Your task to perform on an android device: turn pop-ups on in chrome Image 0: 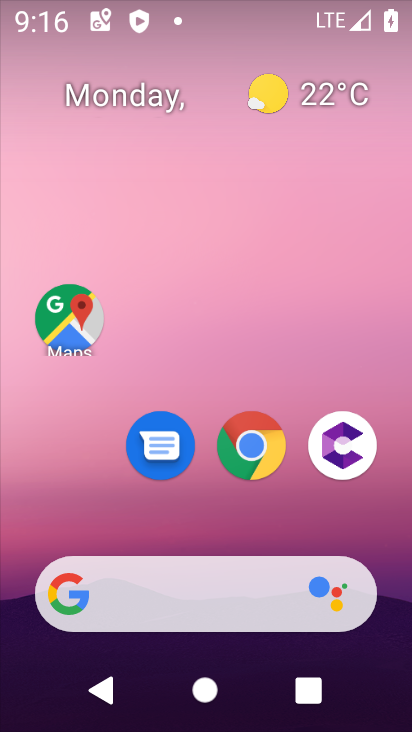
Step 0: click (259, 462)
Your task to perform on an android device: turn pop-ups on in chrome Image 1: 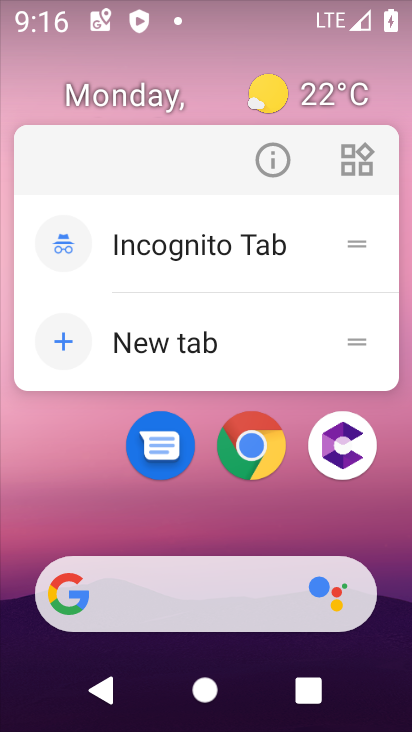
Step 1: click (259, 464)
Your task to perform on an android device: turn pop-ups on in chrome Image 2: 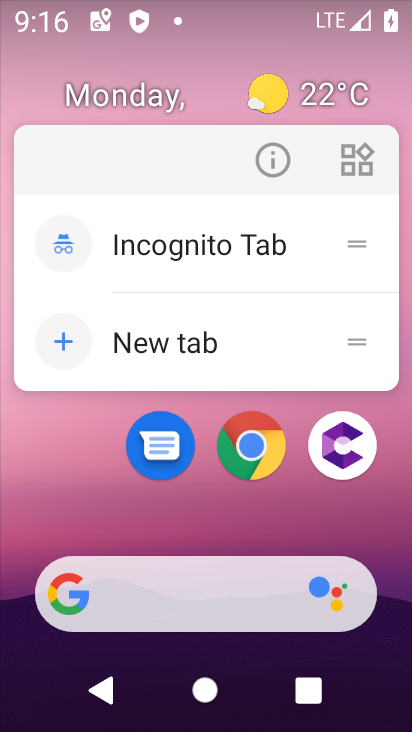
Step 2: click (259, 464)
Your task to perform on an android device: turn pop-ups on in chrome Image 3: 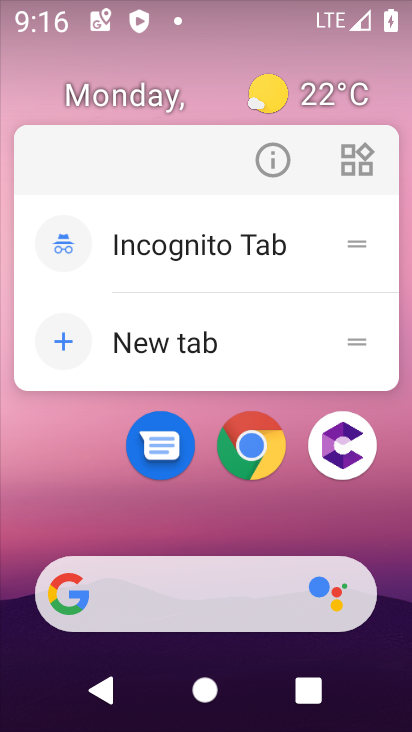
Step 3: click (281, 511)
Your task to perform on an android device: turn pop-ups on in chrome Image 4: 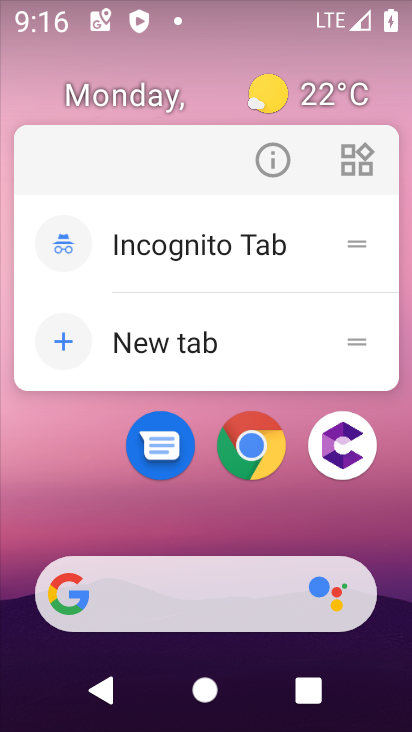
Step 4: click (282, 510)
Your task to perform on an android device: turn pop-ups on in chrome Image 5: 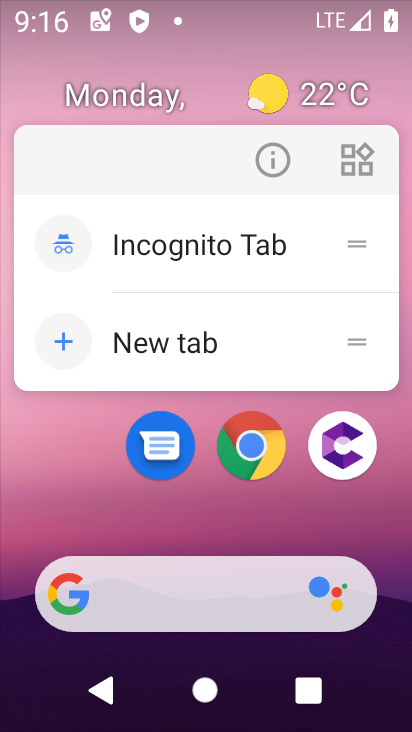
Step 5: drag from (286, 517) to (171, 24)
Your task to perform on an android device: turn pop-ups on in chrome Image 6: 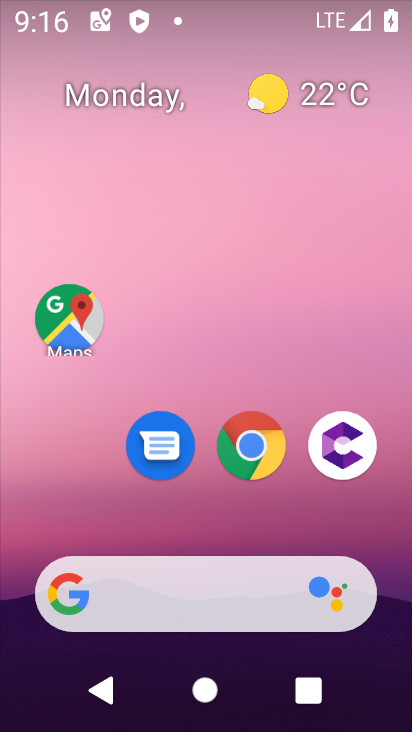
Step 6: drag from (207, 525) to (275, 0)
Your task to perform on an android device: turn pop-ups on in chrome Image 7: 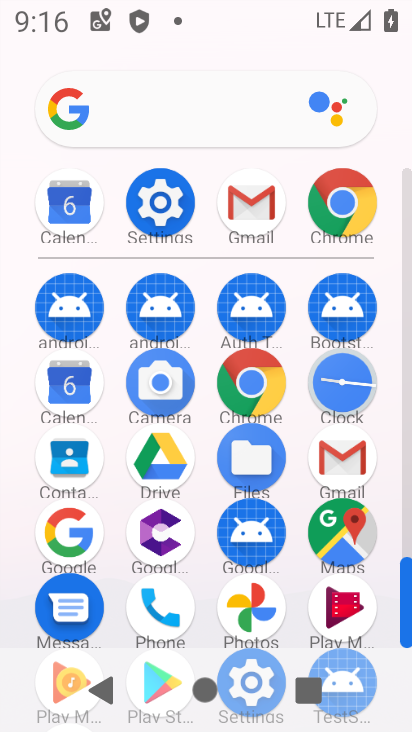
Step 7: click (343, 218)
Your task to perform on an android device: turn pop-ups on in chrome Image 8: 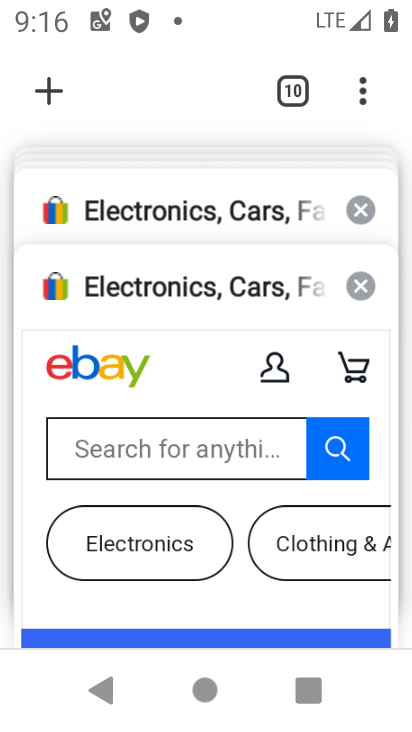
Step 8: drag from (363, 88) to (92, 361)
Your task to perform on an android device: turn pop-ups on in chrome Image 9: 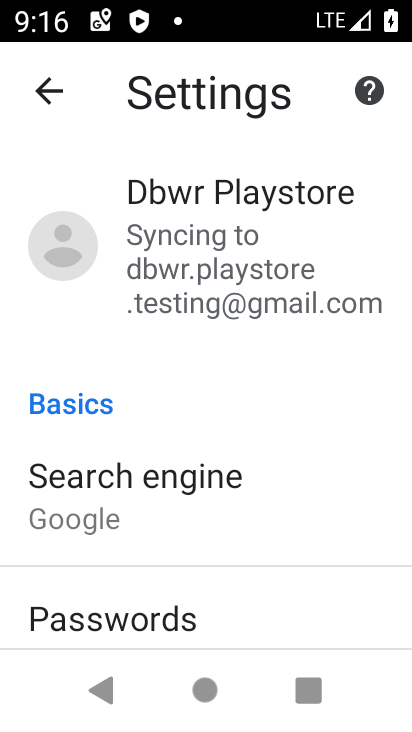
Step 9: drag from (215, 597) to (319, 75)
Your task to perform on an android device: turn pop-ups on in chrome Image 10: 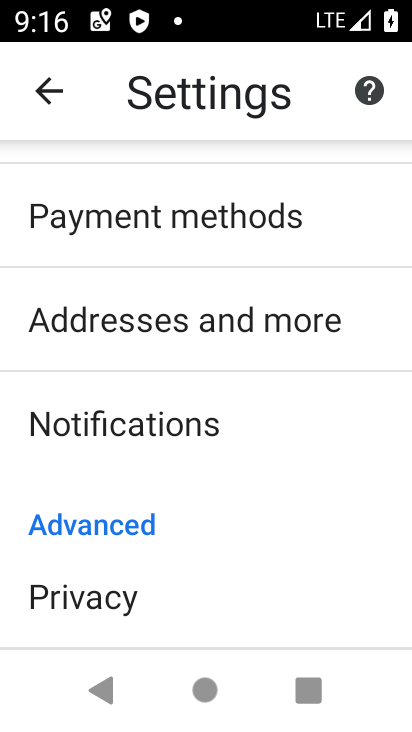
Step 10: drag from (265, 524) to (270, 113)
Your task to perform on an android device: turn pop-ups on in chrome Image 11: 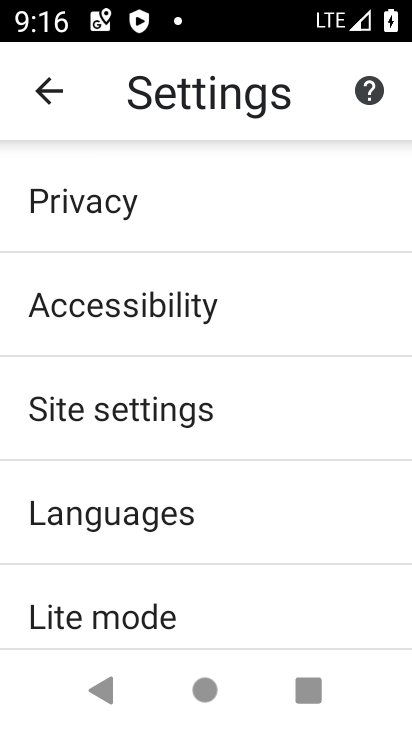
Step 11: click (144, 406)
Your task to perform on an android device: turn pop-ups on in chrome Image 12: 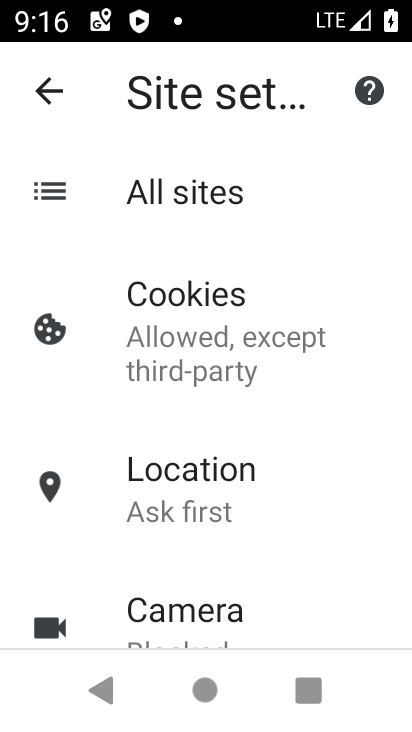
Step 12: drag from (262, 559) to (285, 135)
Your task to perform on an android device: turn pop-ups on in chrome Image 13: 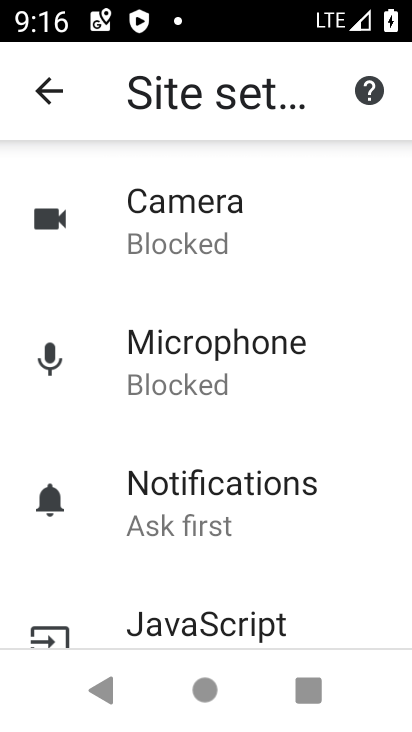
Step 13: drag from (320, 596) to (347, 244)
Your task to perform on an android device: turn pop-ups on in chrome Image 14: 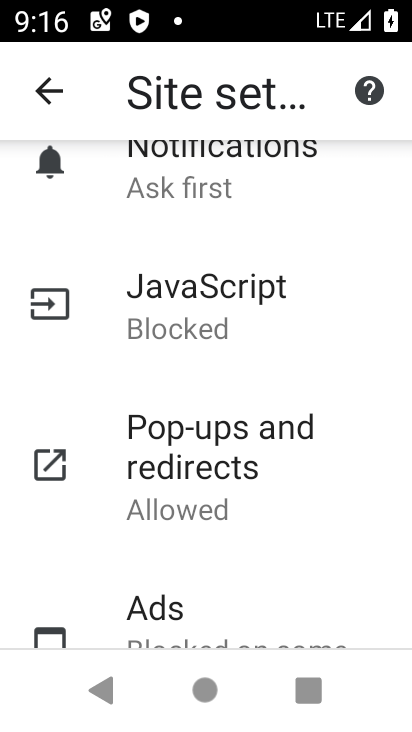
Step 14: click (177, 452)
Your task to perform on an android device: turn pop-ups on in chrome Image 15: 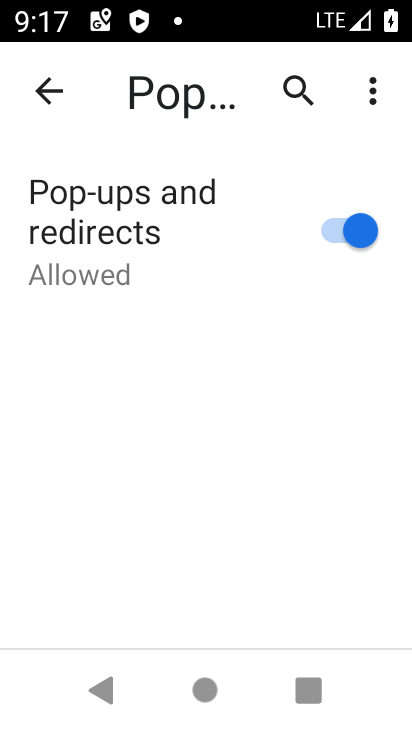
Step 15: click (371, 239)
Your task to perform on an android device: turn pop-ups on in chrome Image 16: 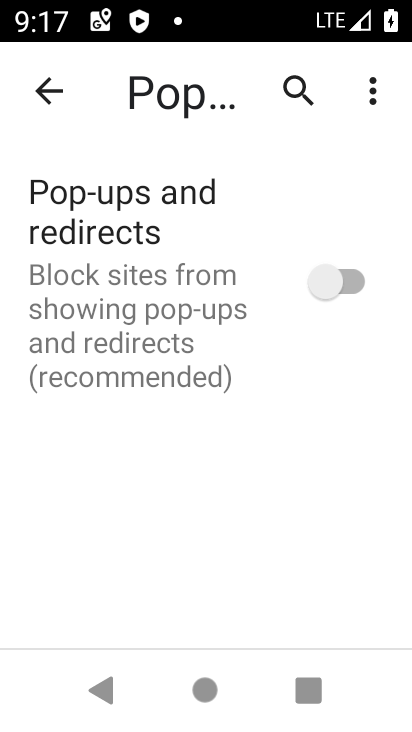
Step 16: task complete